Your task to perform on an android device: toggle notification dots Image 0: 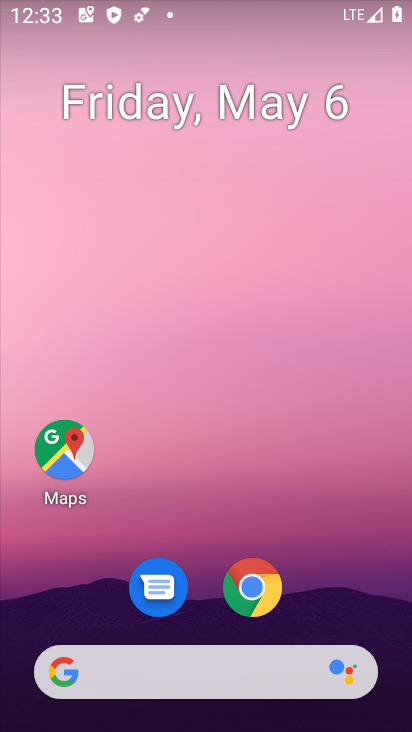
Step 0: drag from (240, 585) to (262, 63)
Your task to perform on an android device: toggle notification dots Image 1: 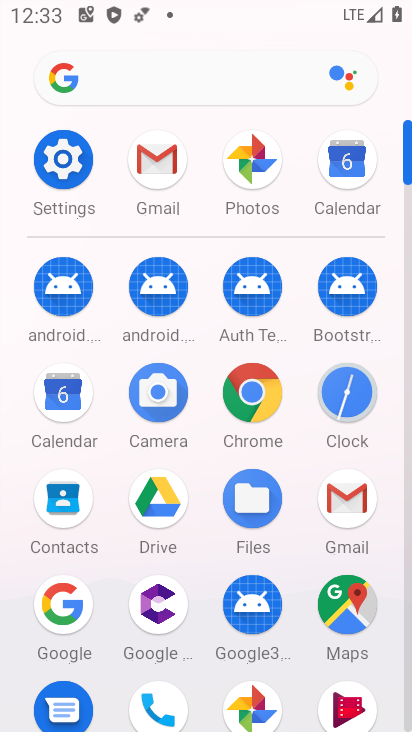
Step 1: click (61, 145)
Your task to perform on an android device: toggle notification dots Image 2: 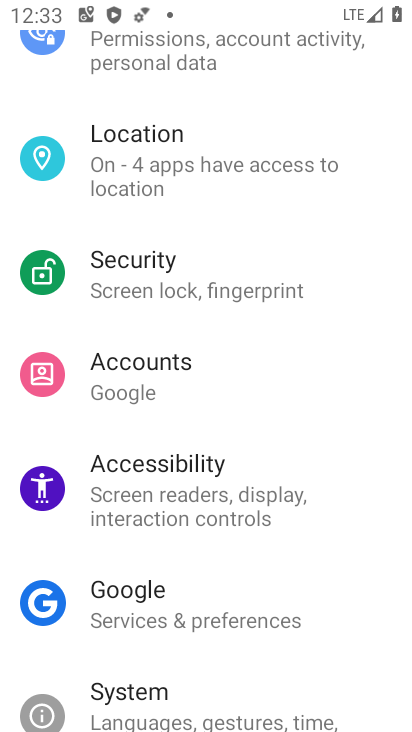
Step 2: drag from (303, 143) to (199, 722)
Your task to perform on an android device: toggle notification dots Image 3: 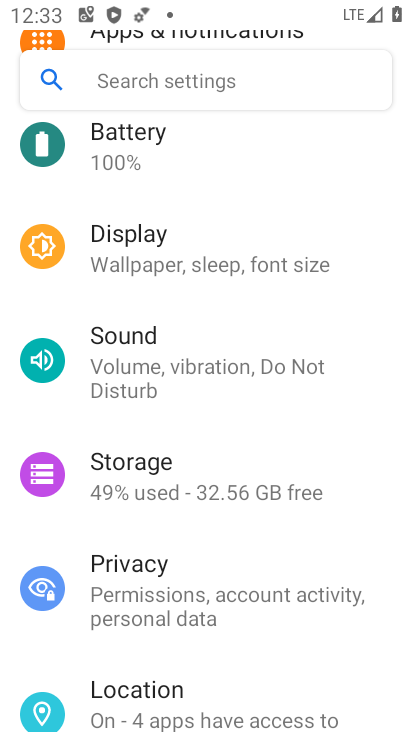
Step 3: drag from (232, 211) to (226, 681)
Your task to perform on an android device: toggle notification dots Image 4: 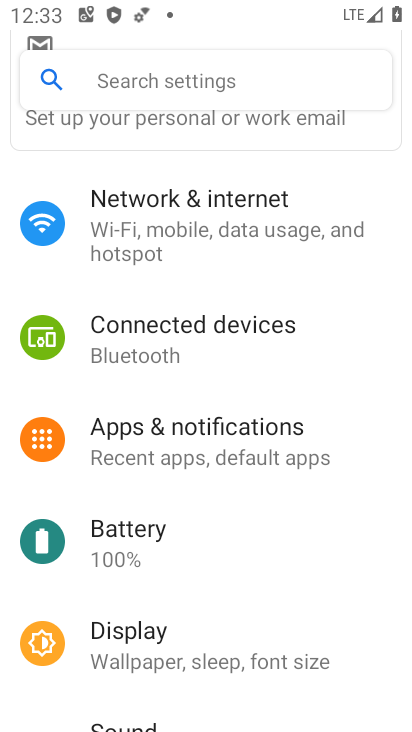
Step 4: click (211, 457)
Your task to perform on an android device: toggle notification dots Image 5: 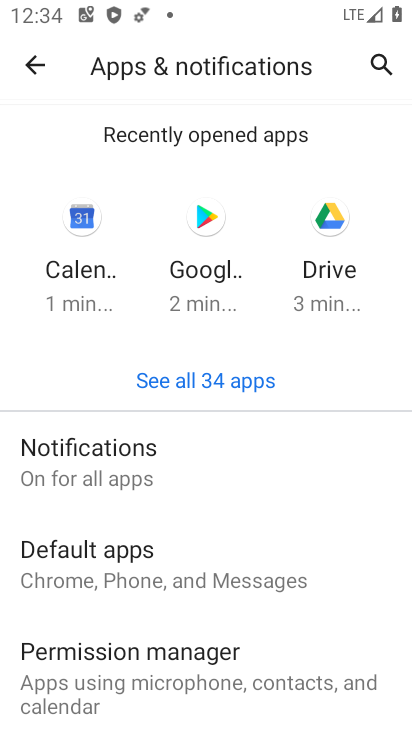
Step 5: click (171, 482)
Your task to perform on an android device: toggle notification dots Image 6: 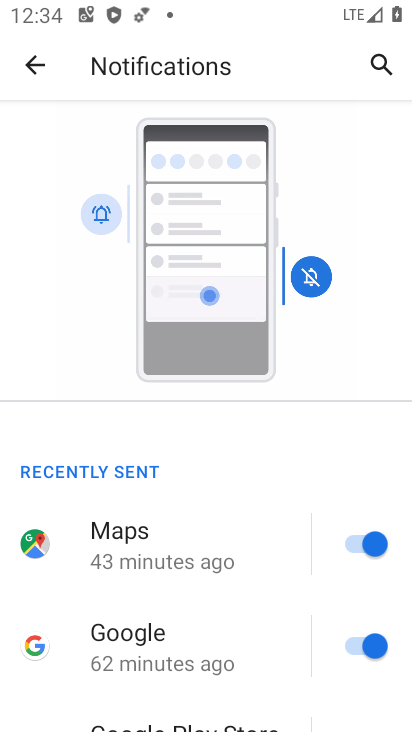
Step 6: drag from (213, 654) to (301, 145)
Your task to perform on an android device: toggle notification dots Image 7: 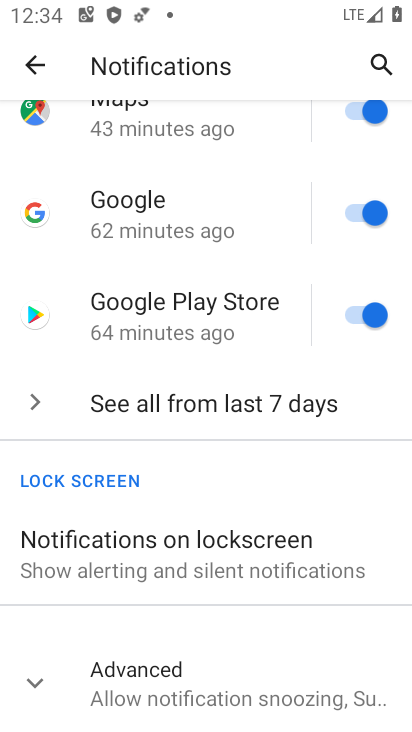
Step 7: drag from (145, 696) to (276, 168)
Your task to perform on an android device: toggle notification dots Image 8: 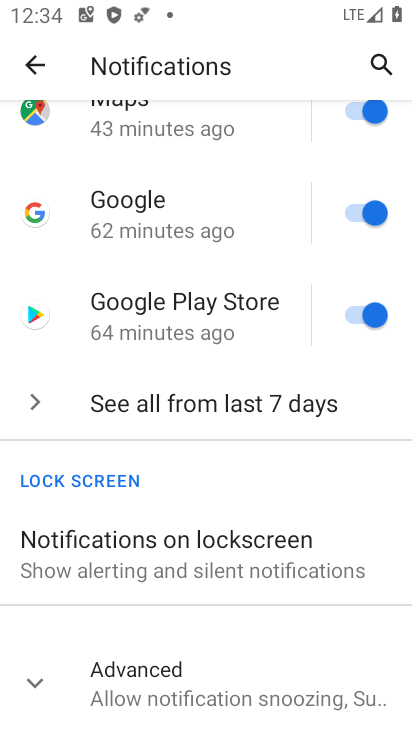
Step 8: click (200, 681)
Your task to perform on an android device: toggle notification dots Image 9: 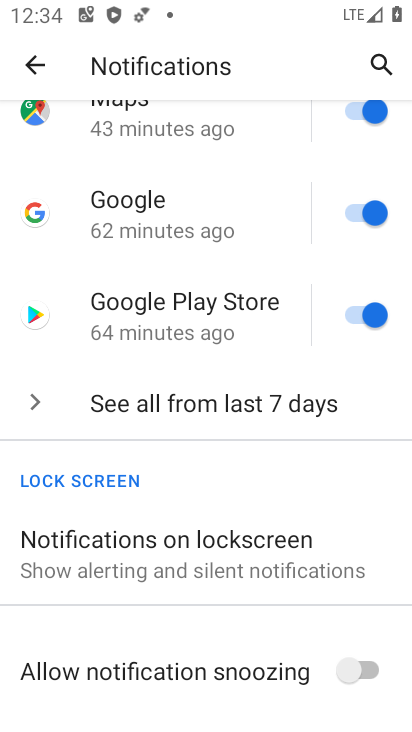
Step 9: drag from (199, 674) to (253, 203)
Your task to perform on an android device: toggle notification dots Image 10: 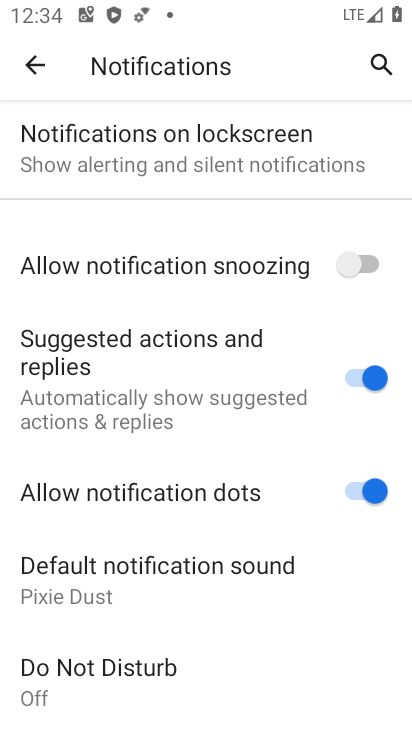
Step 10: click (361, 495)
Your task to perform on an android device: toggle notification dots Image 11: 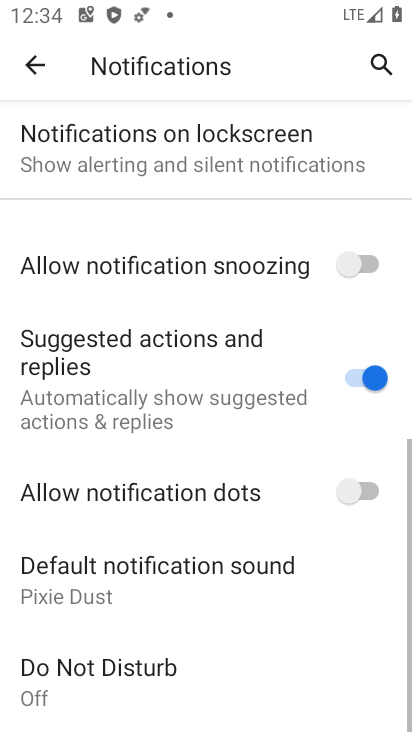
Step 11: task complete